Your task to perform on an android device: add a label to a message in the gmail app Image 0: 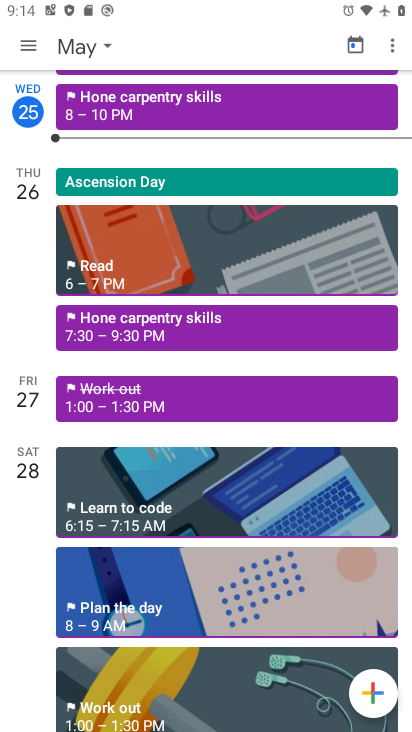
Step 0: press home button
Your task to perform on an android device: add a label to a message in the gmail app Image 1: 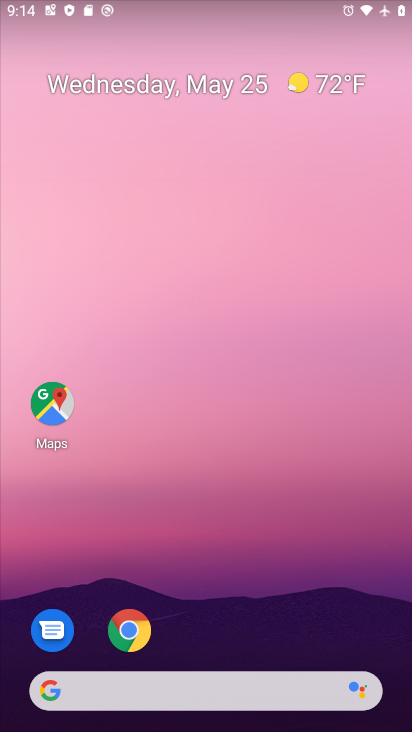
Step 1: drag from (257, 610) to (258, 149)
Your task to perform on an android device: add a label to a message in the gmail app Image 2: 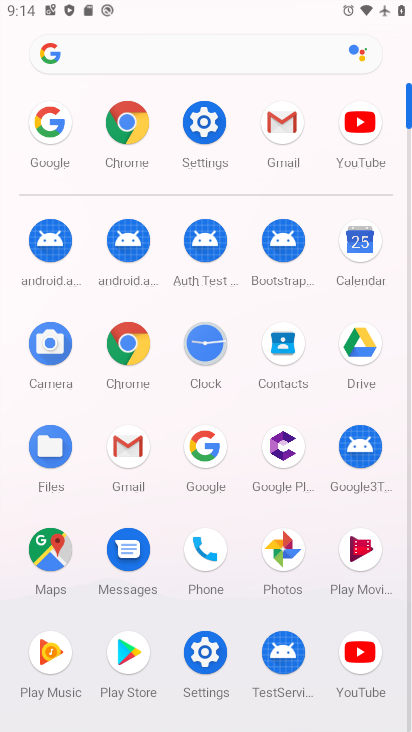
Step 2: click (300, 122)
Your task to perform on an android device: add a label to a message in the gmail app Image 3: 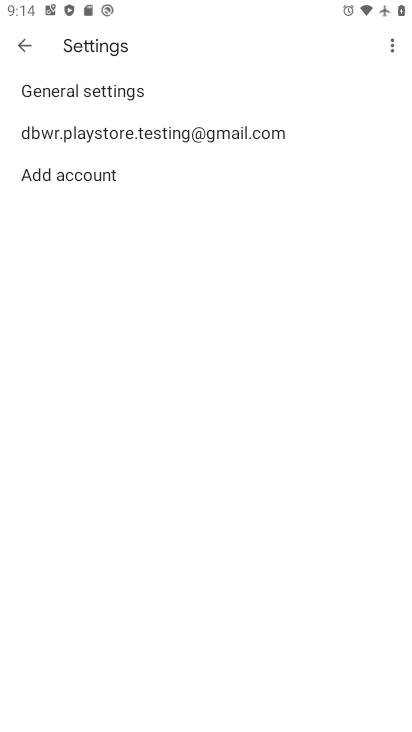
Step 3: click (21, 43)
Your task to perform on an android device: add a label to a message in the gmail app Image 4: 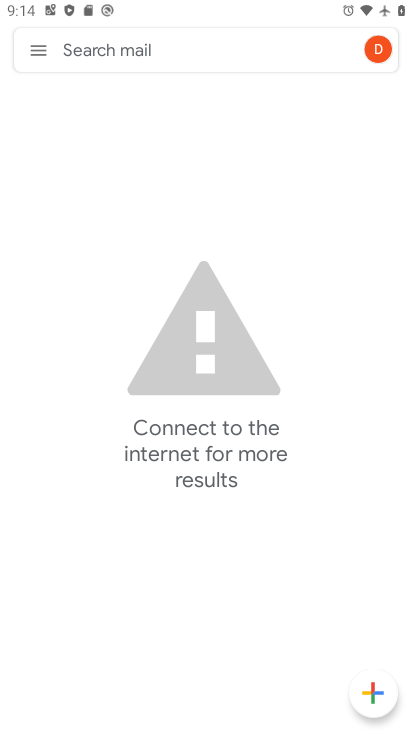
Step 4: task complete